Your task to perform on an android device: turn on showing notifications on the lock screen Image 0: 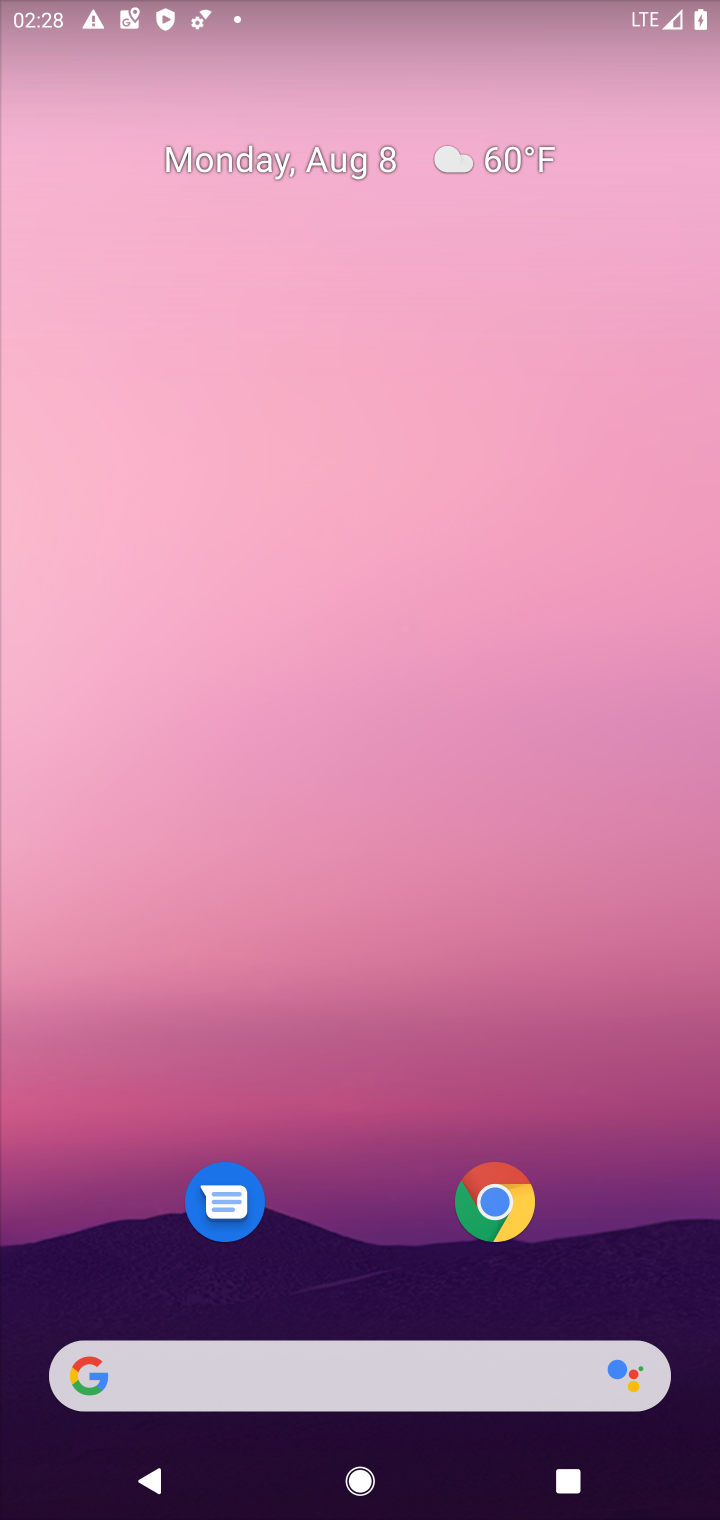
Step 0: drag from (354, 662) to (359, 3)
Your task to perform on an android device: turn on showing notifications on the lock screen Image 1: 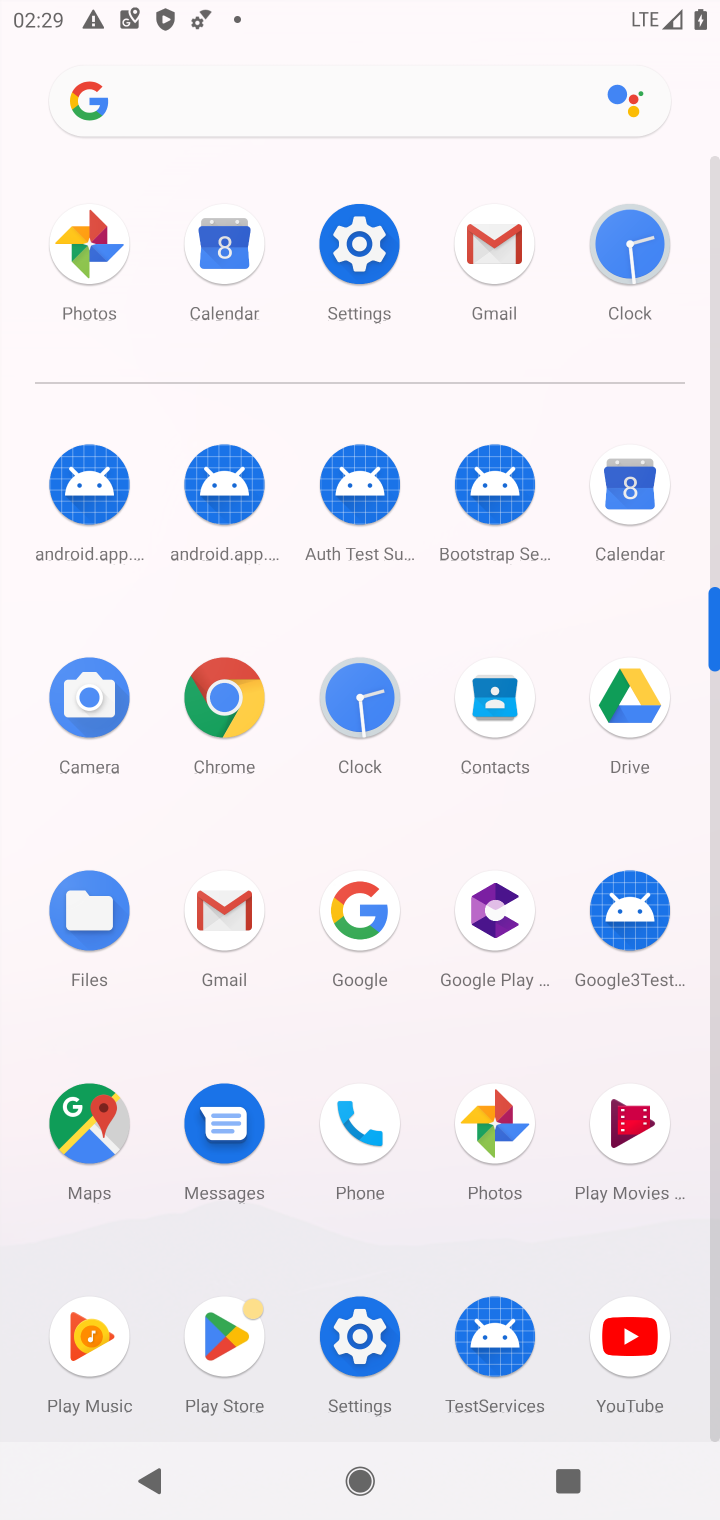
Step 1: click (362, 1348)
Your task to perform on an android device: turn on showing notifications on the lock screen Image 2: 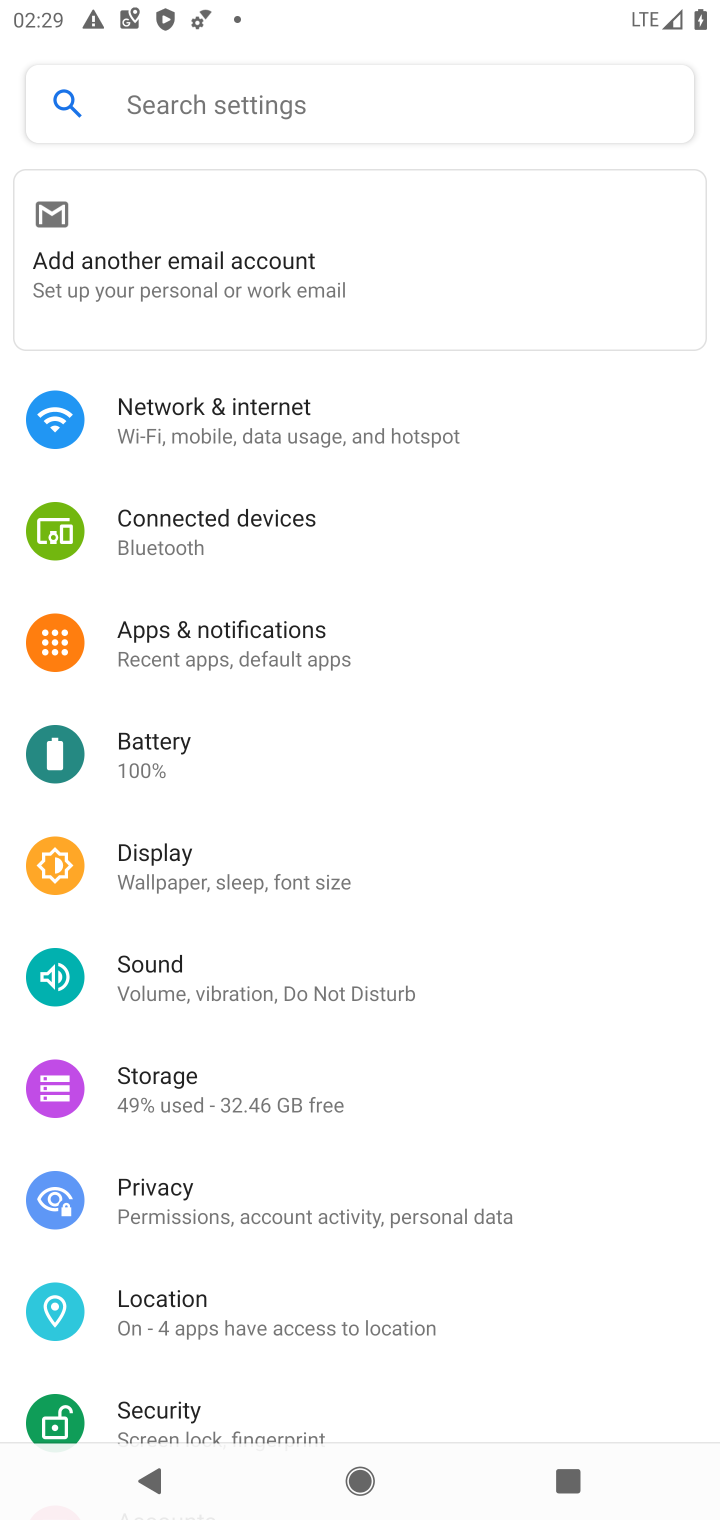
Step 2: click (207, 626)
Your task to perform on an android device: turn on showing notifications on the lock screen Image 3: 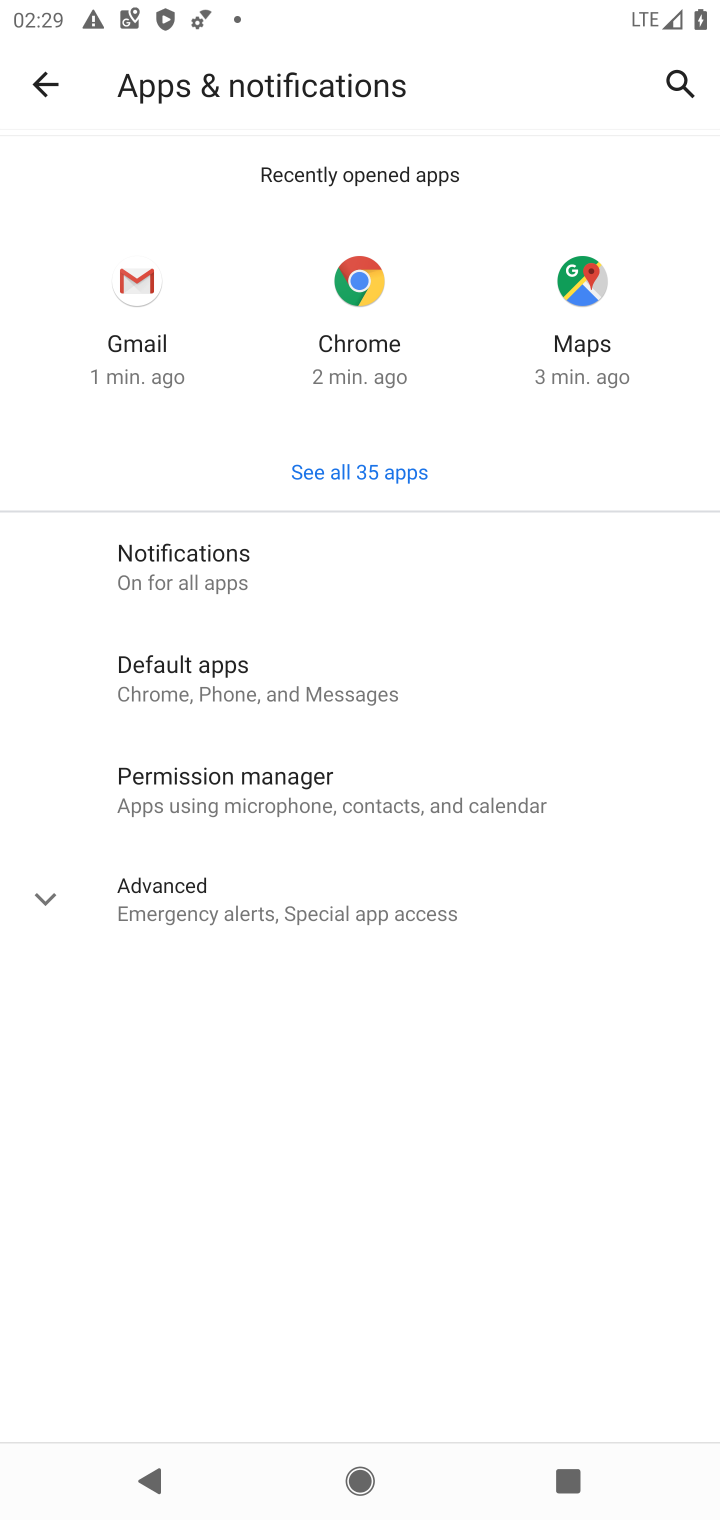
Step 3: click (168, 562)
Your task to perform on an android device: turn on showing notifications on the lock screen Image 4: 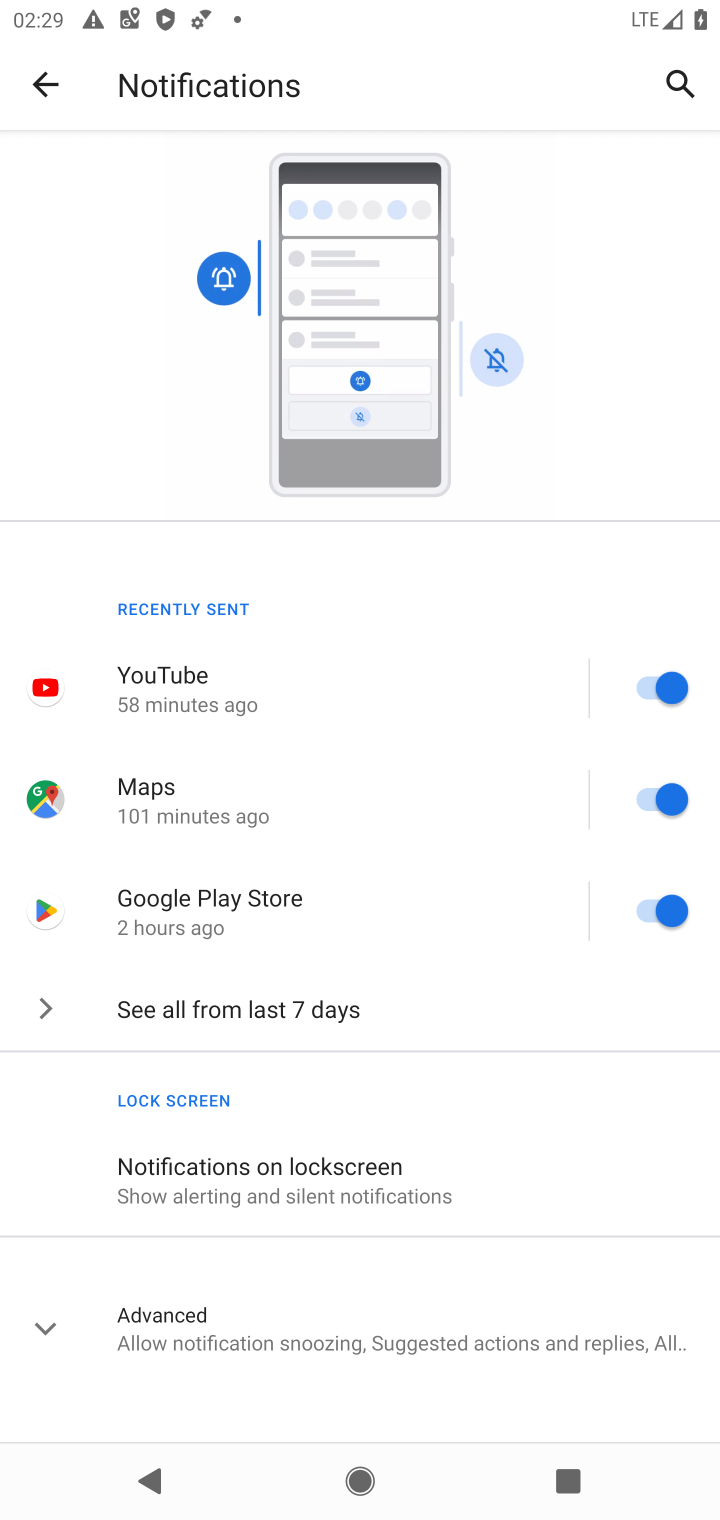
Step 4: click (266, 1176)
Your task to perform on an android device: turn on showing notifications on the lock screen Image 5: 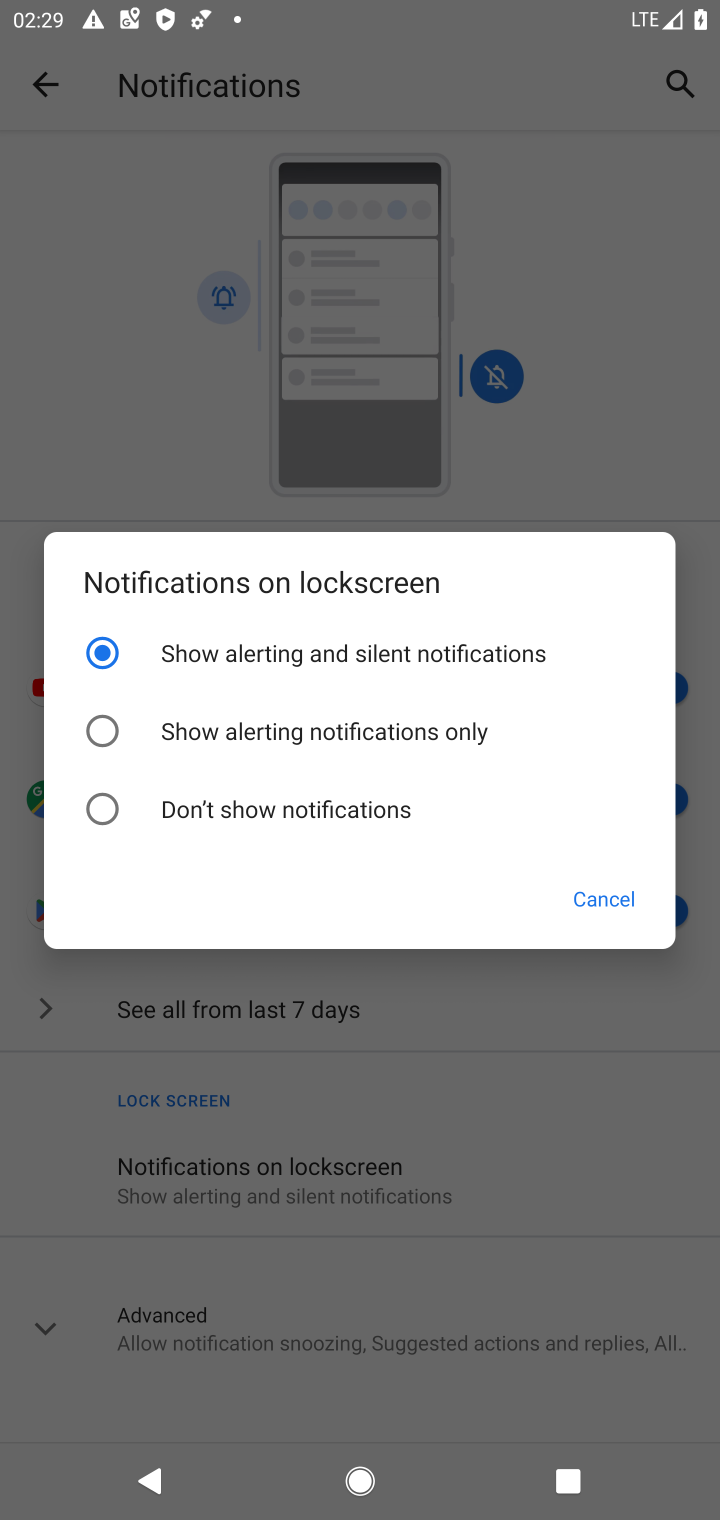
Step 5: task complete